Your task to perform on an android device: star an email in the gmail app Image 0: 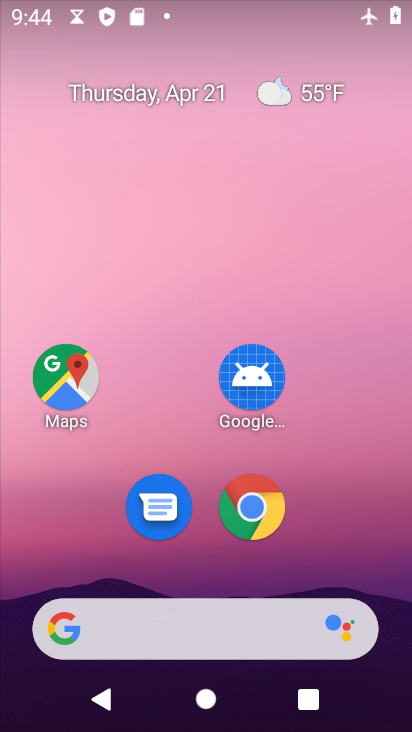
Step 0: drag from (329, 571) to (333, 195)
Your task to perform on an android device: star an email in the gmail app Image 1: 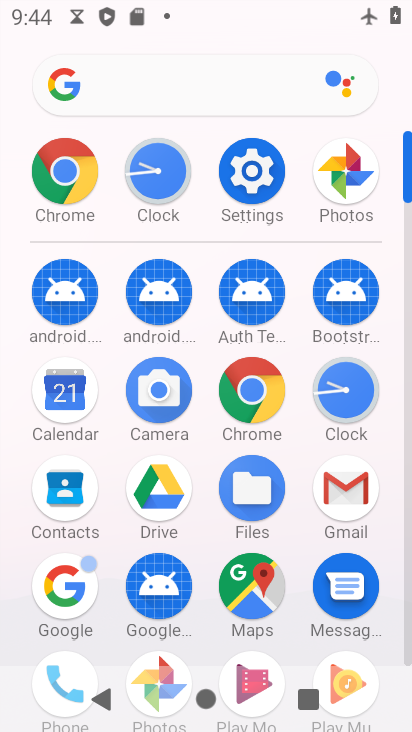
Step 1: click (343, 479)
Your task to perform on an android device: star an email in the gmail app Image 2: 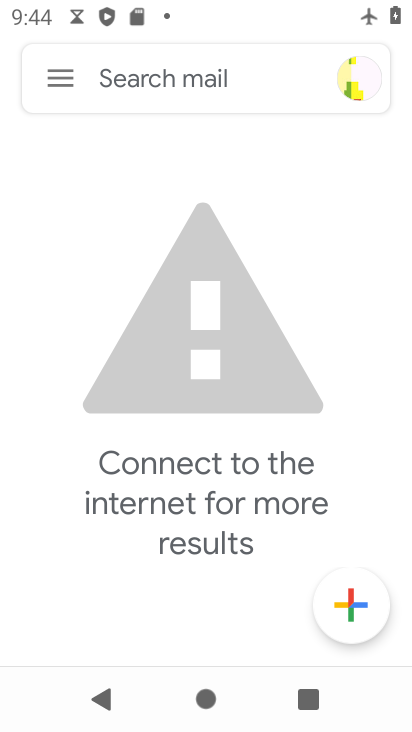
Step 2: click (59, 67)
Your task to perform on an android device: star an email in the gmail app Image 3: 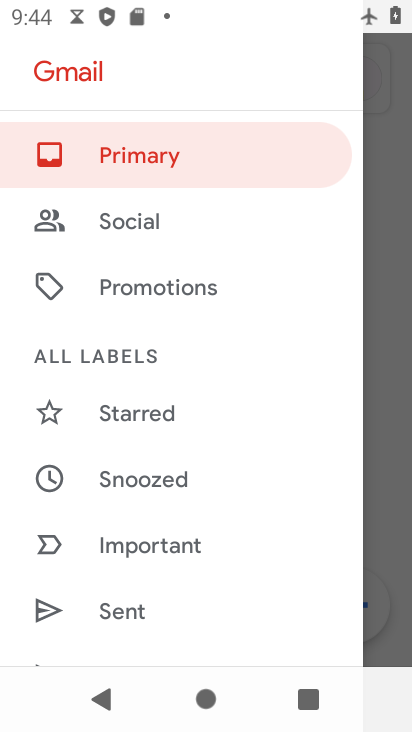
Step 3: click (165, 406)
Your task to perform on an android device: star an email in the gmail app Image 4: 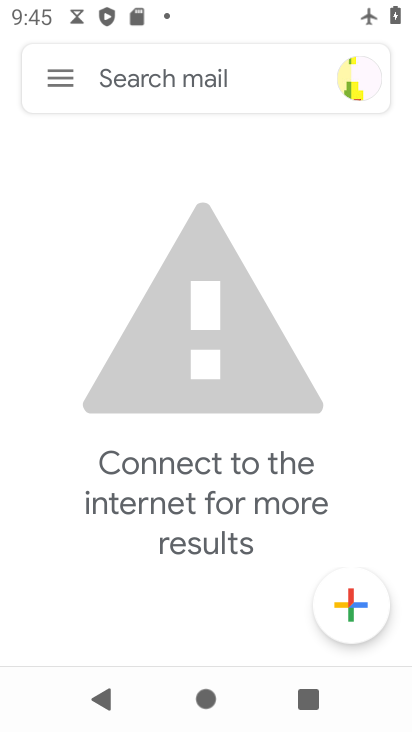
Step 4: click (60, 59)
Your task to perform on an android device: star an email in the gmail app Image 5: 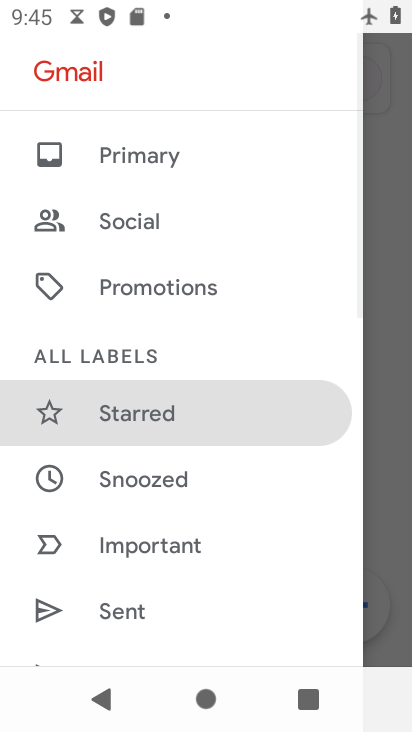
Step 5: click (173, 423)
Your task to perform on an android device: star an email in the gmail app Image 6: 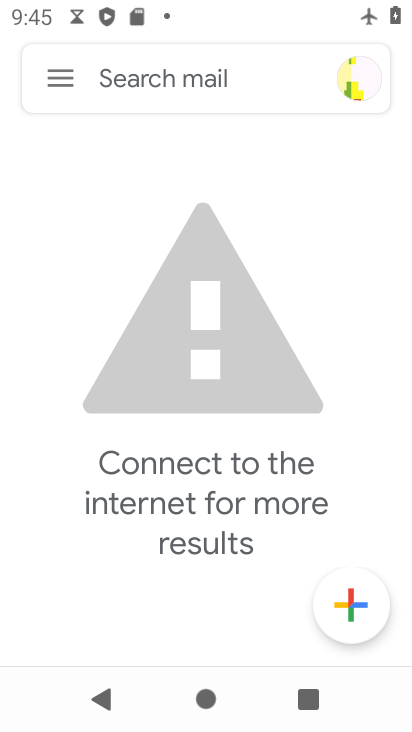
Step 6: task complete